Your task to perform on an android device: turn pop-ups off in chrome Image 0: 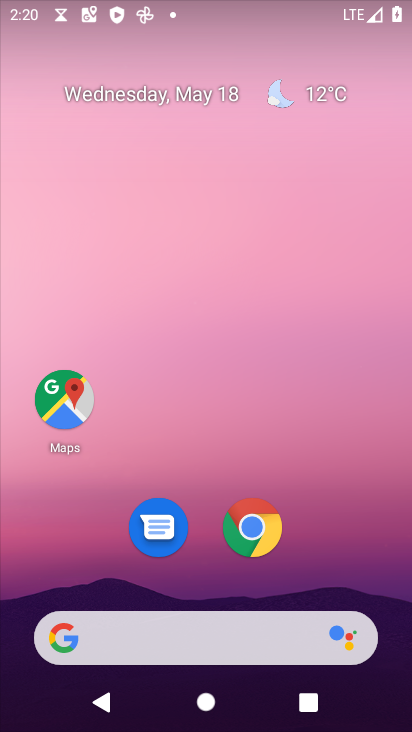
Step 0: click (256, 540)
Your task to perform on an android device: turn pop-ups off in chrome Image 1: 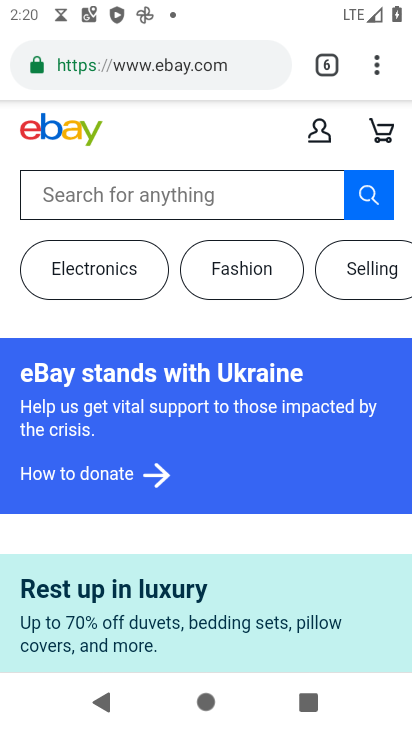
Step 1: click (373, 66)
Your task to perform on an android device: turn pop-ups off in chrome Image 2: 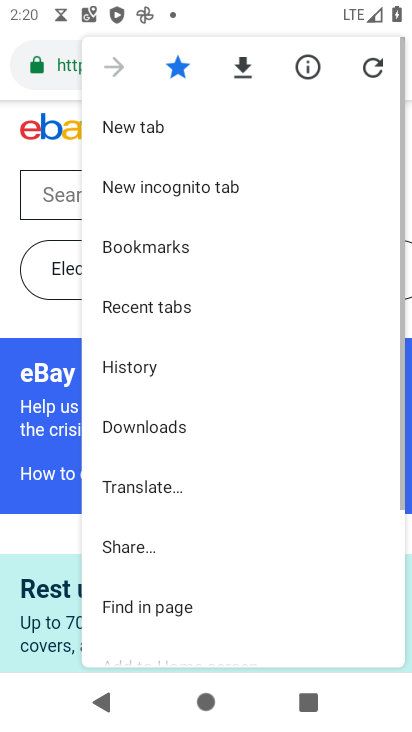
Step 2: drag from (227, 565) to (166, 160)
Your task to perform on an android device: turn pop-ups off in chrome Image 3: 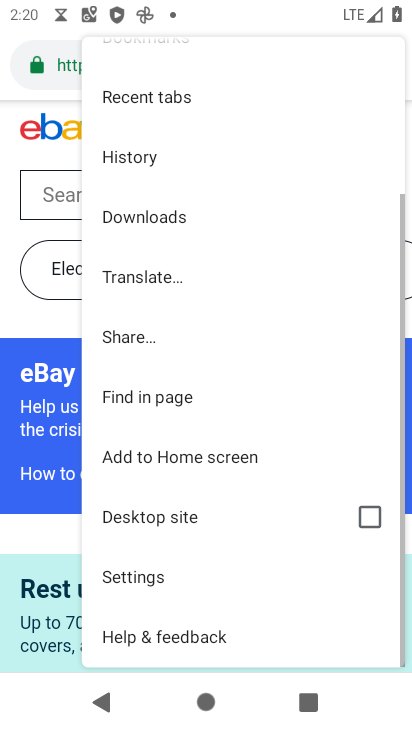
Step 3: click (174, 577)
Your task to perform on an android device: turn pop-ups off in chrome Image 4: 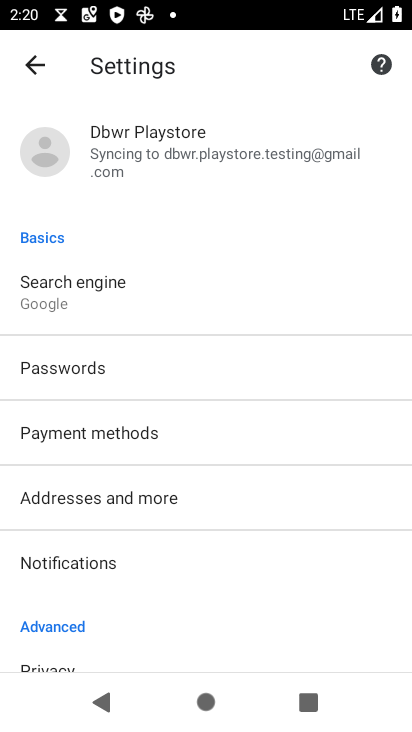
Step 4: drag from (218, 574) to (221, 222)
Your task to perform on an android device: turn pop-ups off in chrome Image 5: 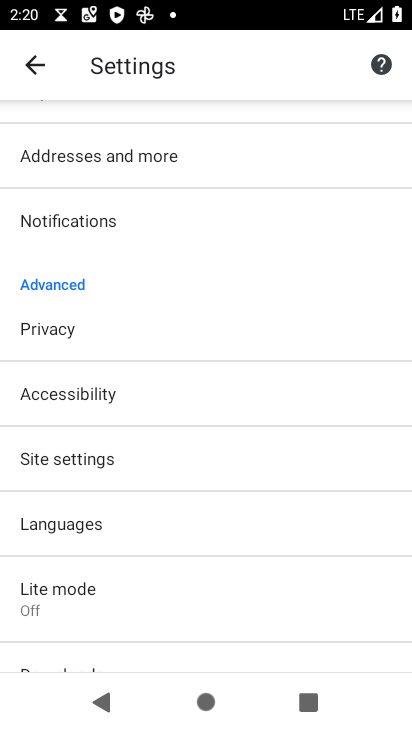
Step 5: click (138, 468)
Your task to perform on an android device: turn pop-ups off in chrome Image 6: 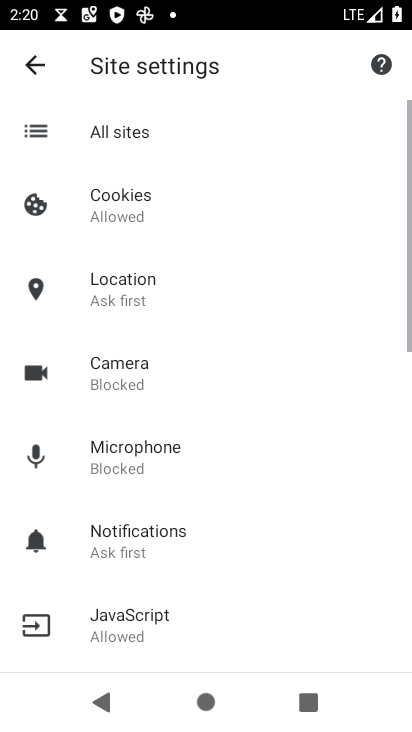
Step 6: drag from (245, 588) to (207, 154)
Your task to perform on an android device: turn pop-ups off in chrome Image 7: 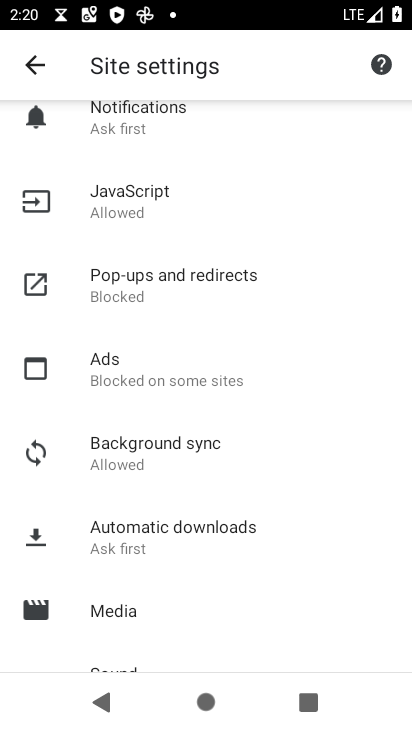
Step 7: click (201, 277)
Your task to perform on an android device: turn pop-ups off in chrome Image 8: 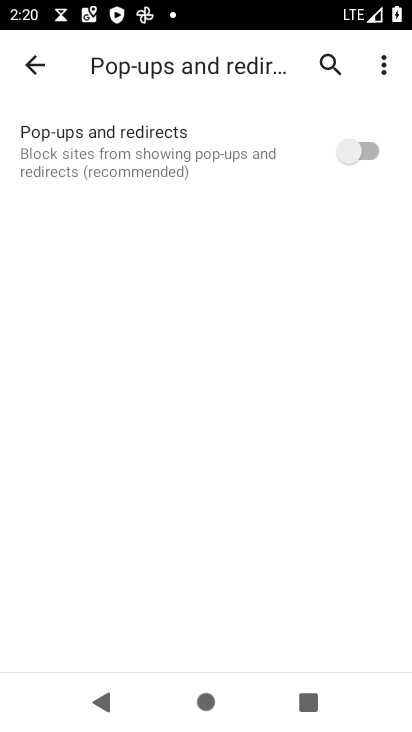
Step 8: task complete